Your task to perform on an android device: Go to CNN.com Image 0: 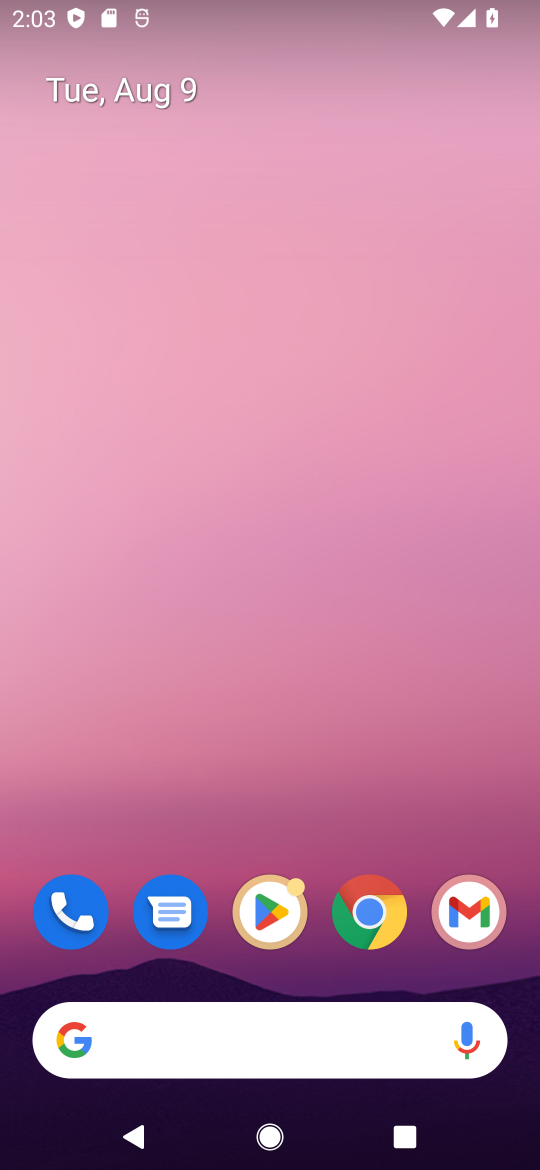
Step 0: click (379, 917)
Your task to perform on an android device: Go to CNN.com Image 1: 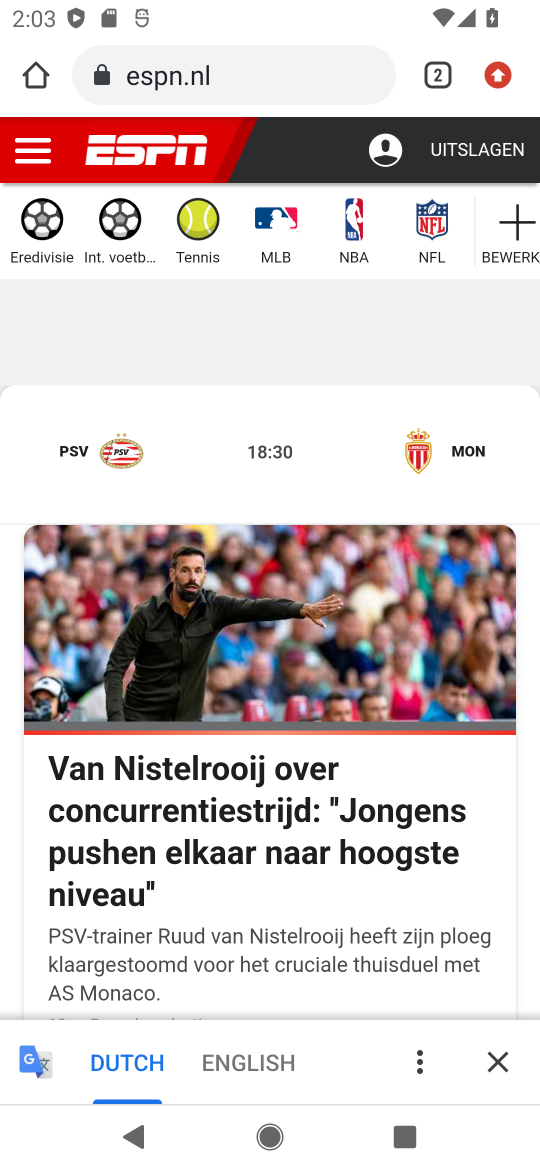
Step 1: click (495, 84)
Your task to perform on an android device: Go to CNN.com Image 2: 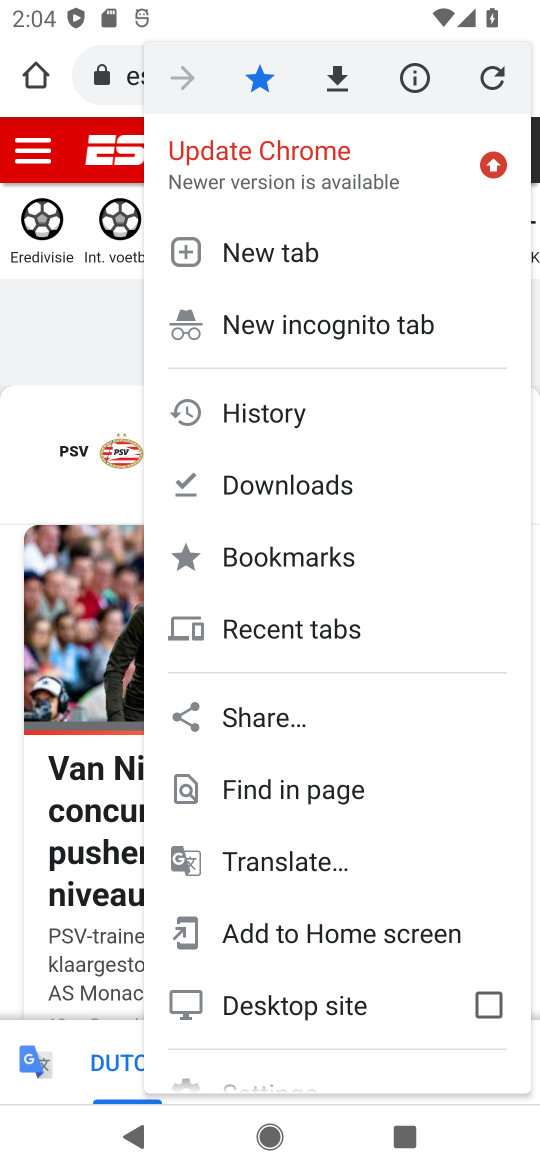
Step 2: click (283, 247)
Your task to perform on an android device: Go to CNN.com Image 3: 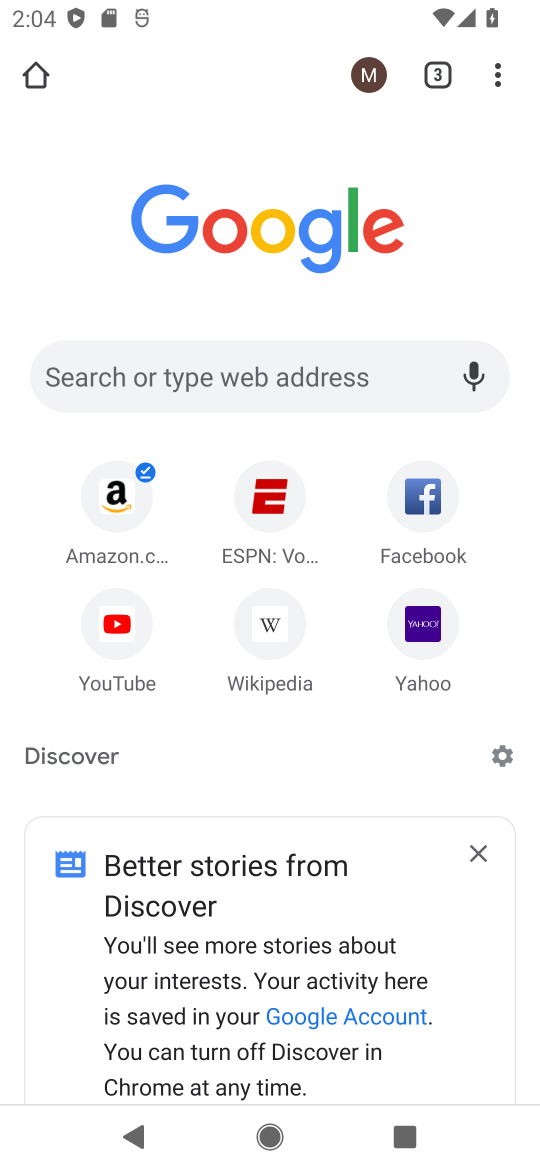
Step 3: click (196, 363)
Your task to perform on an android device: Go to CNN.com Image 4: 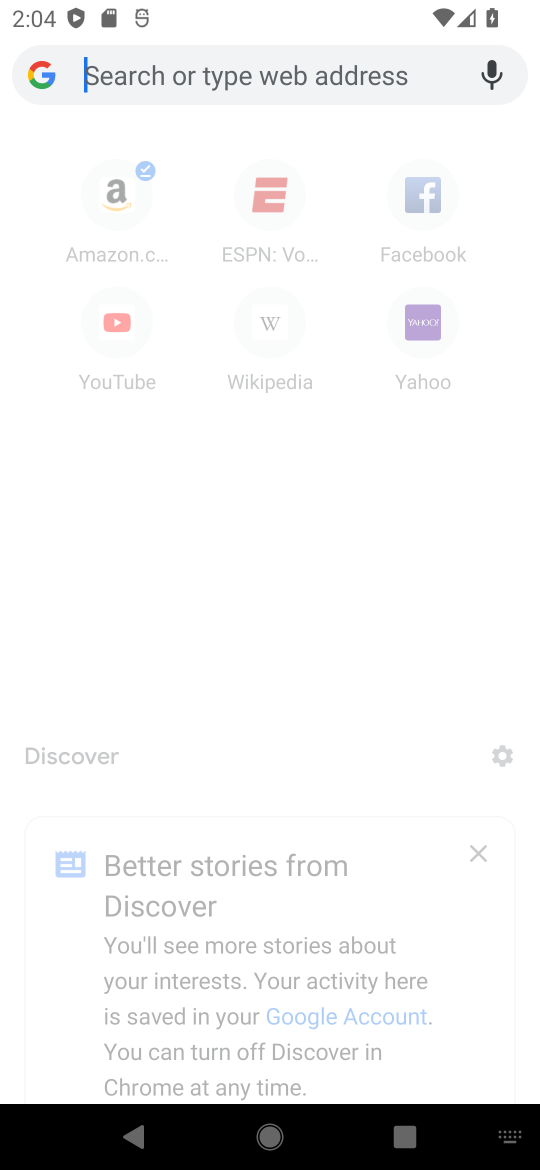
Step 4: type "cnn.com"
Your task to perform on an android device: Go to CNN.com Image 5: 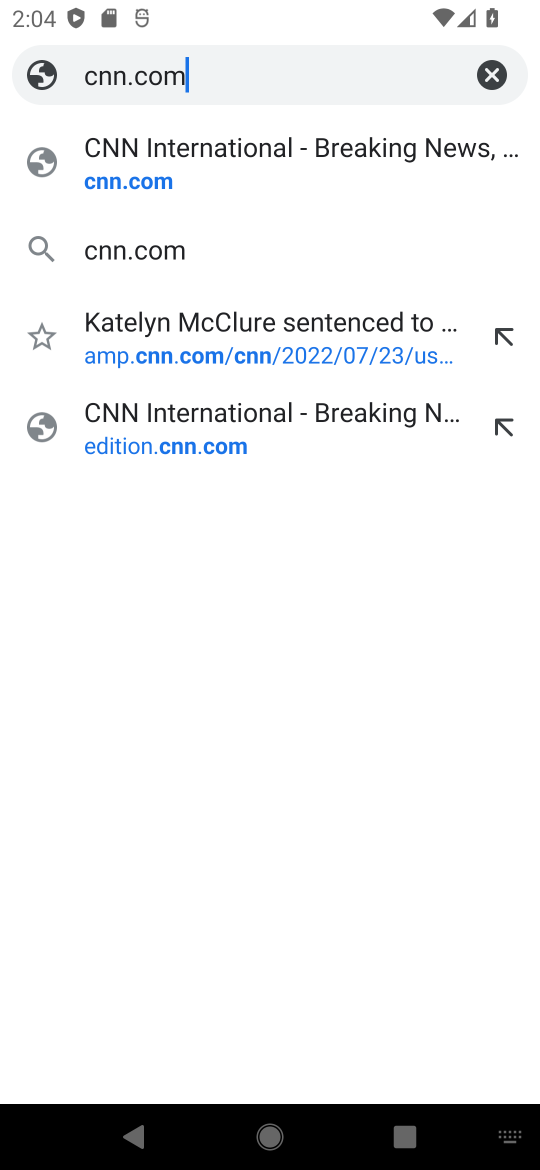
Step 5: click (138, 160)
Your task to perform on an android device: Go to CNN.com Image 6: 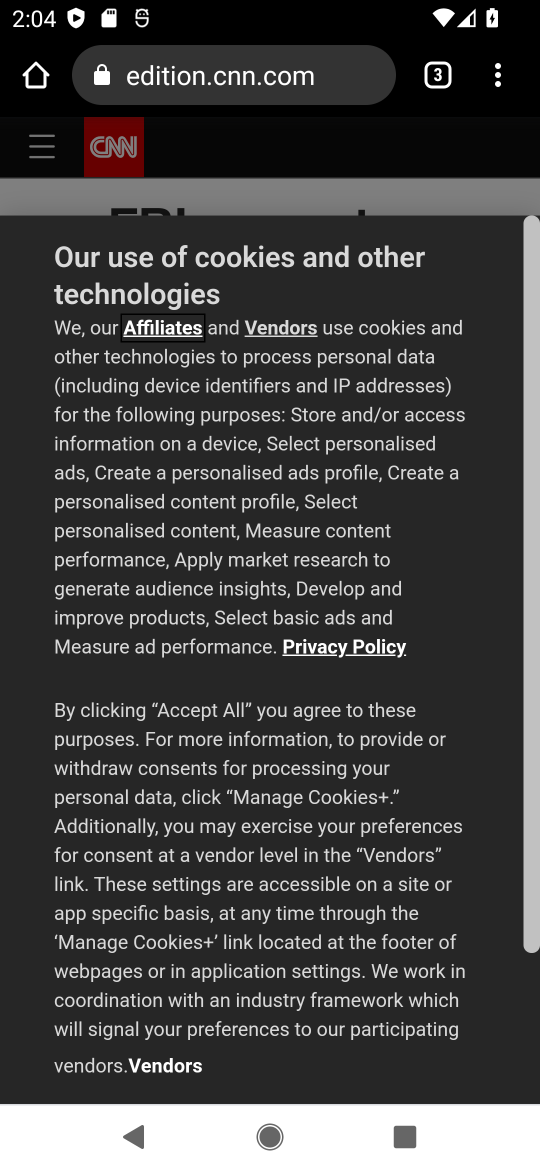
Step 6: task complete